Your task to perform on an android device: refresh tabs in the chrome app Image 0: 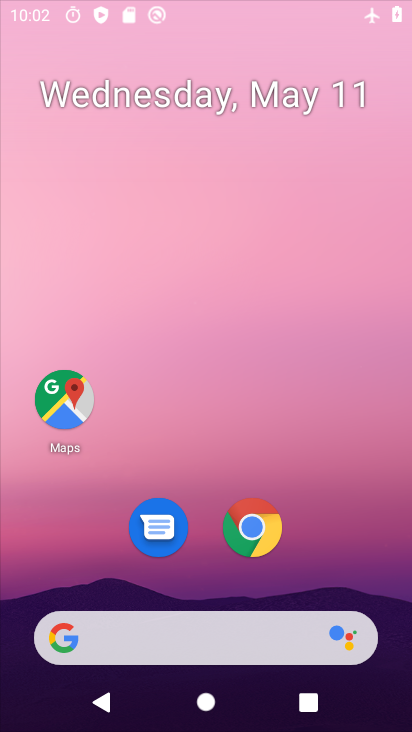
Step 0: click (360, 220)
Your task to perform on an android device: refresh tabs in the chrome app Image 1: 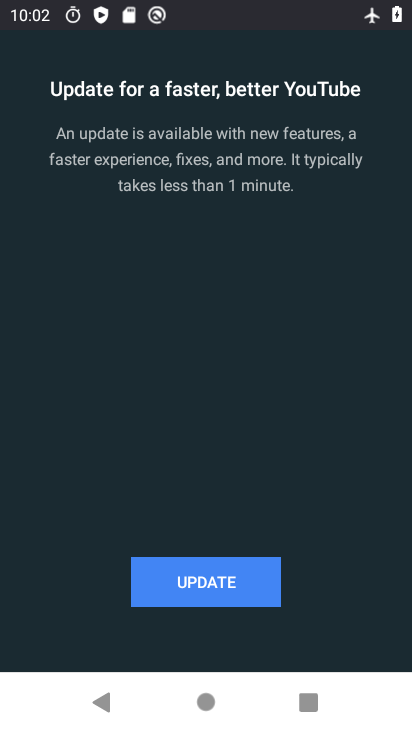
Step 1: press home button
Your task to perform on an android device: refresh tabs in the chrome app Image 2: 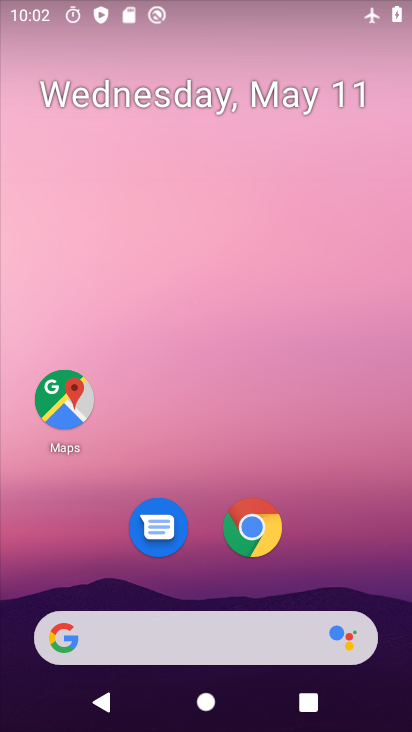
Step 2: drag from (285, 581) to (358, 168)
Your task to perform on an android device: refresh tabs in the chrome app Image 3: 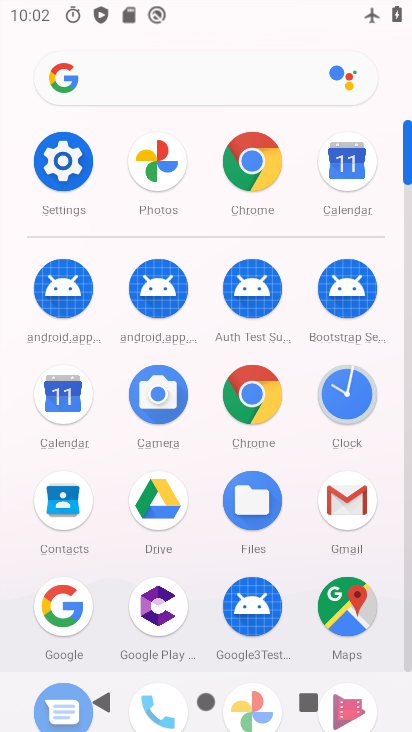
Step 3: click (273, 164)
Your task to perform on an android device: refresh tabs in the chrome app Image 4: 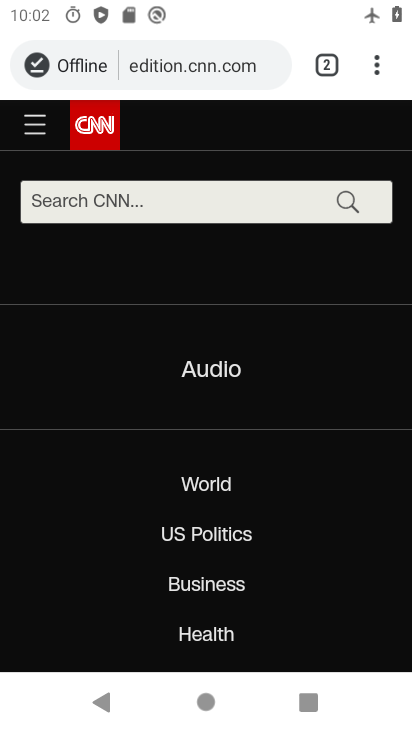
Step 4: click (378, 75)
Your task to perform on an android device: refresh tabs in the chrome app Image 5: 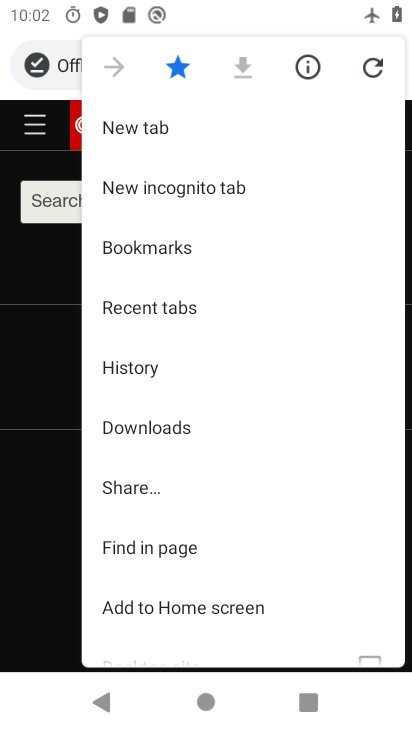
Step 5: click (377, 73)
Your task to perform on an android device: refresh tabs in the chrome app Image 6: 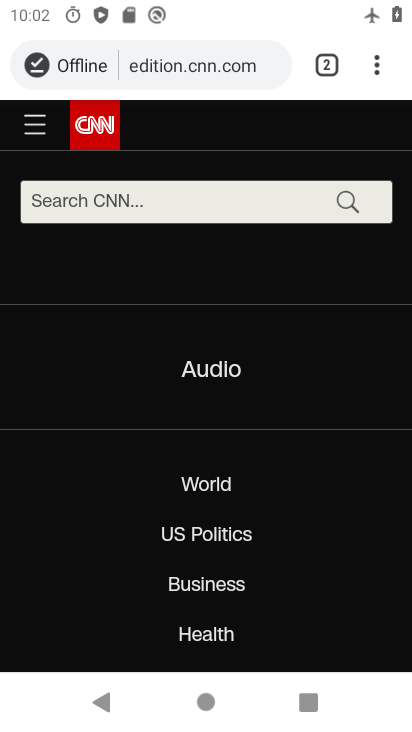
Step 6: task complete